Your task to perform on an android device: See recent photos Image 0: 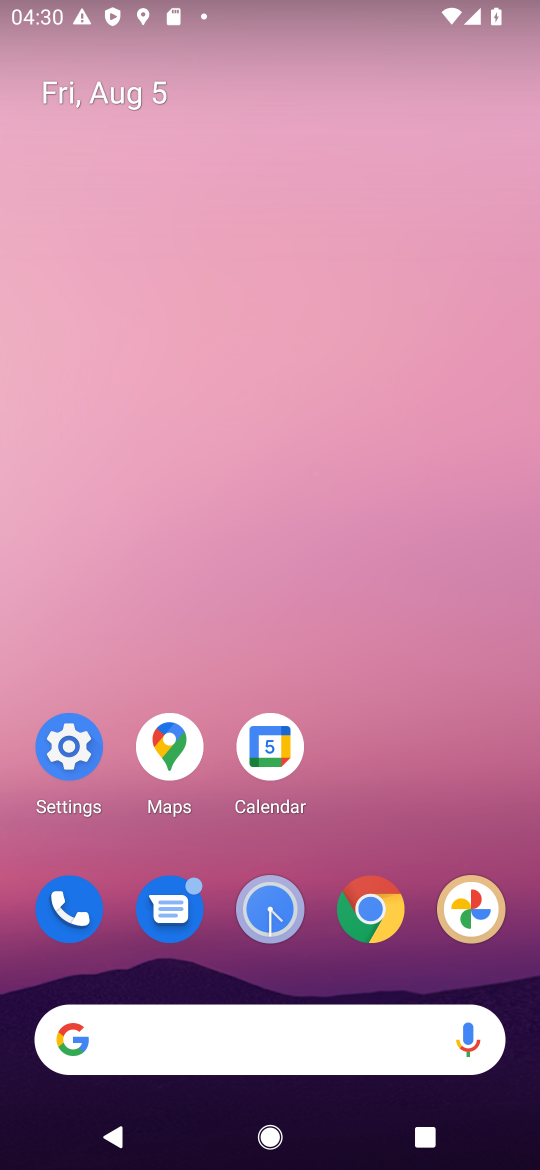
Step 0: click (463, 911)
Your task to perform on an android device: See recent photos Image 1: 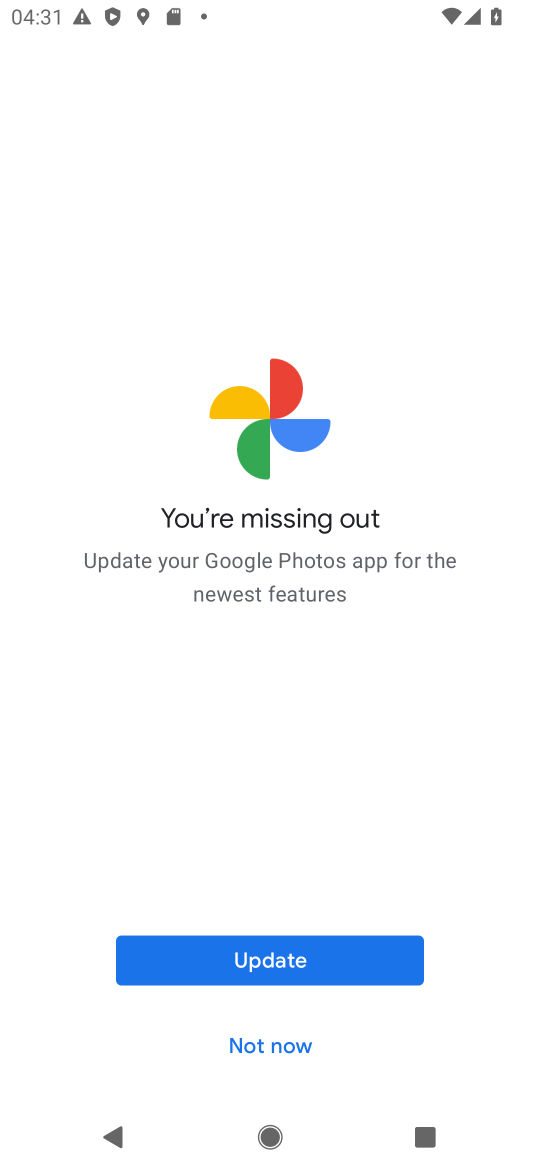
Step 1: click (279, 967)
Your task to perform on an android device: See recent photos Image 2: 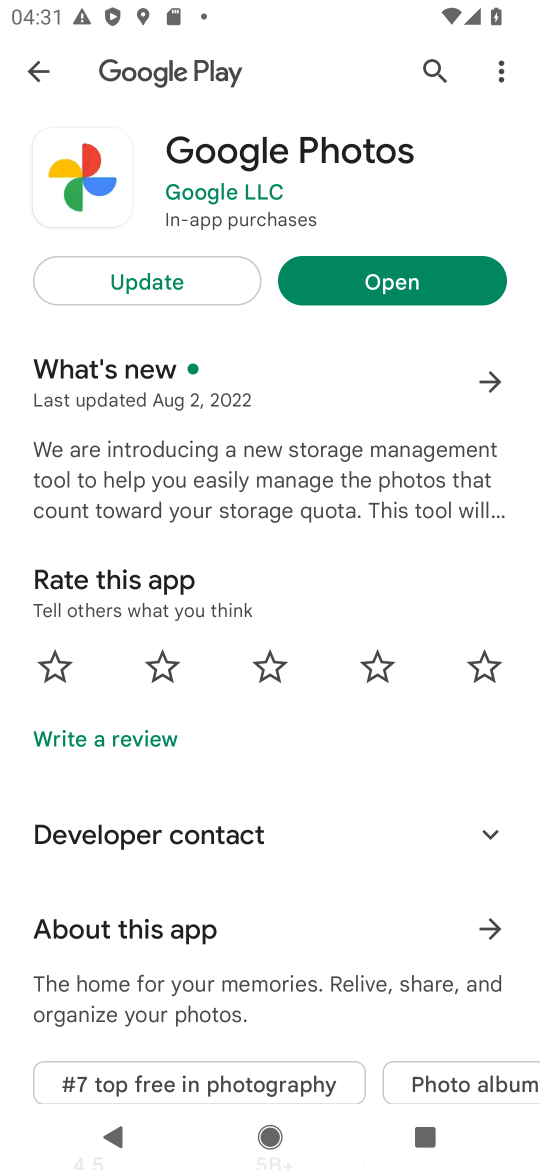
Step 2: click (397, 280)
Your task to perform on an android device: See recent photos Image 3: 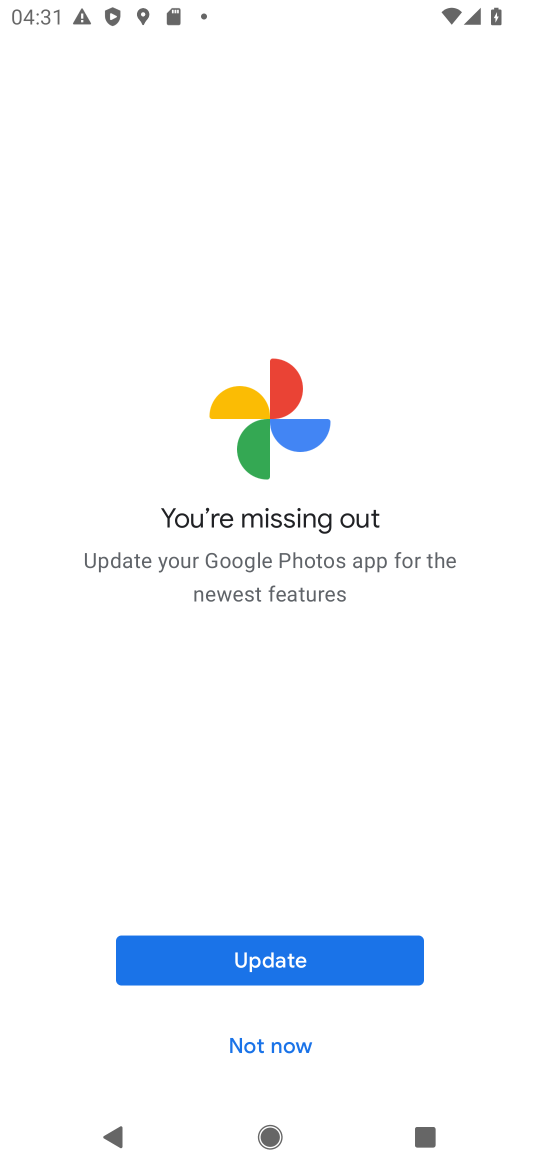
Step 3: click (262, 960)
Your task to perform on an android device: See recent photos Image 4: 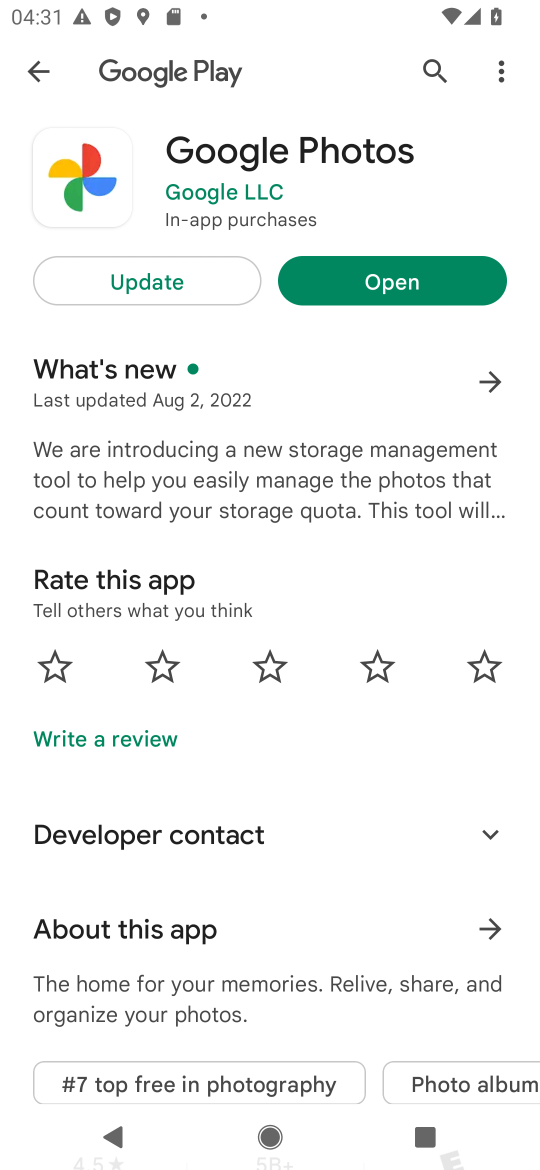
Step 4: click (129, 273)
Your task to perform on an android device: See recent photos Image 5: 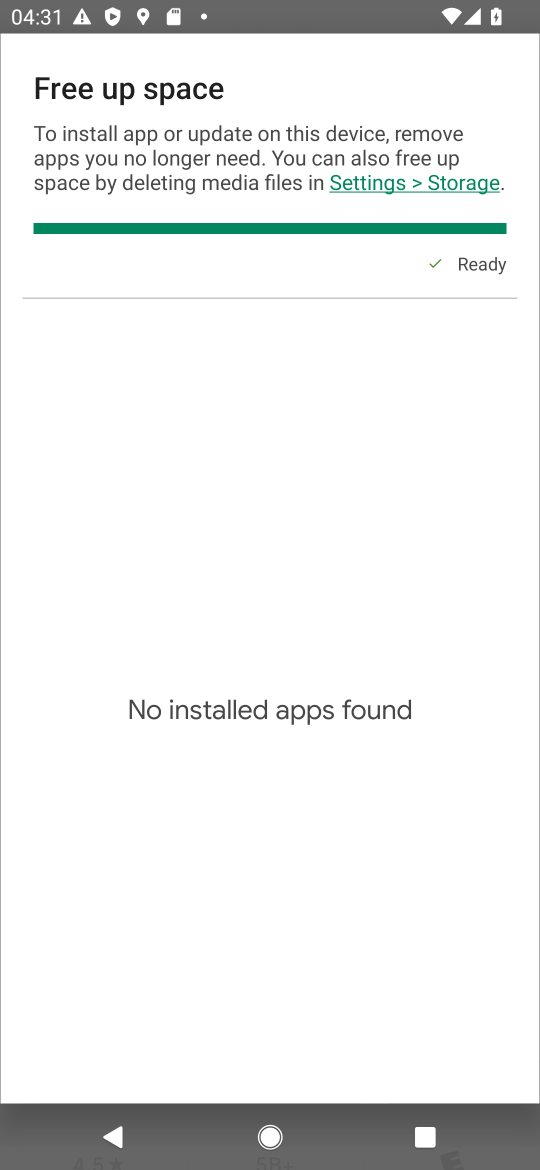
Step 5: task complete